Your task to perform on an android device: search for starred emails in the gmail app Image 0: 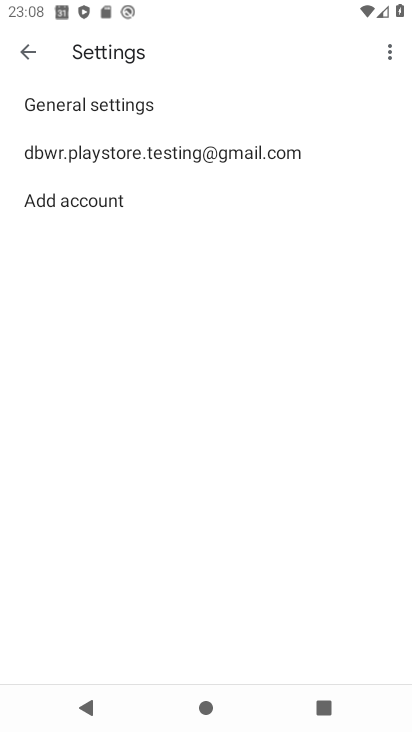
Step 0: press back button
Your task to perform on an android device: search for starred emails in the gmail app Image 1: 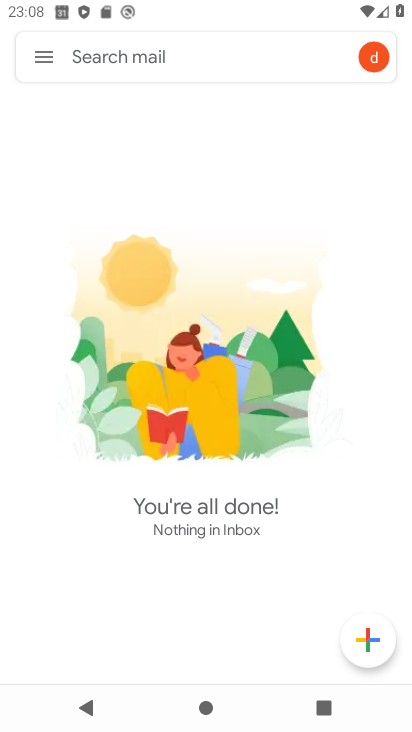
Step 1: press back button
Your task to perform on an android device: search for starred emails in the gmail app Image 2: 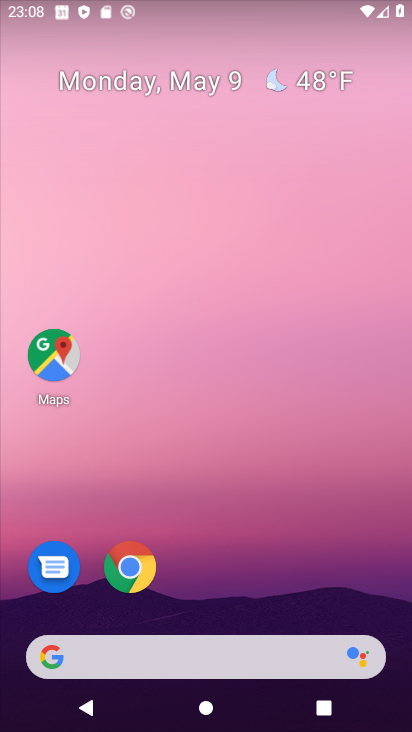
Step 2: drag from (230, 582) to (180, 76)
Your task to perform on an android device: search for starred emails in the gmail app Image 3: 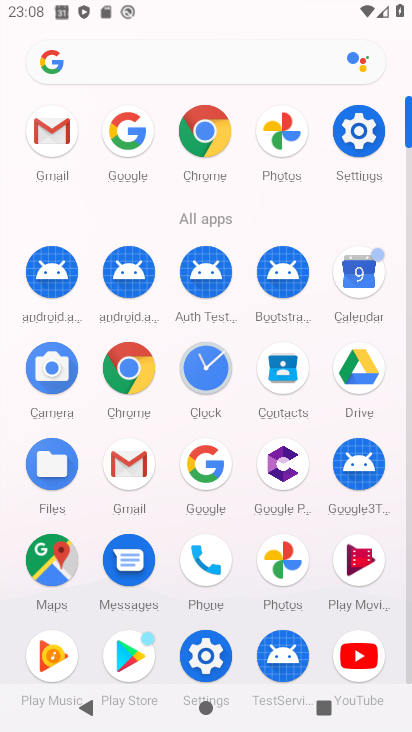
Step 3: click (48, 135)
Your task to perform on an android device: search for starred emails in the gmail app Image 4: 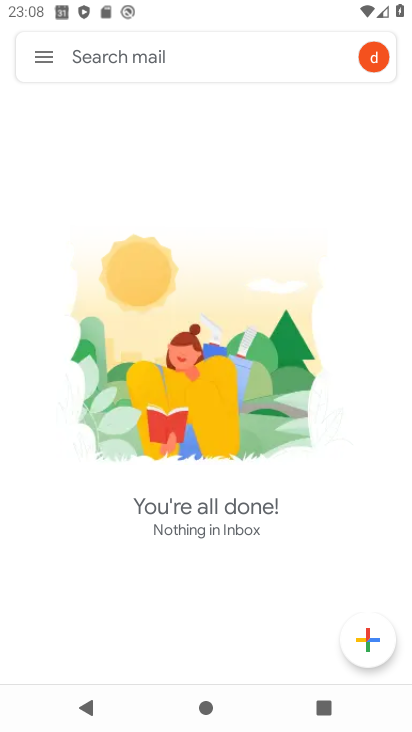
Step 4: click (42, 56)
Your task to perform on an android device: search for starred emails in the gmail app Image 5: 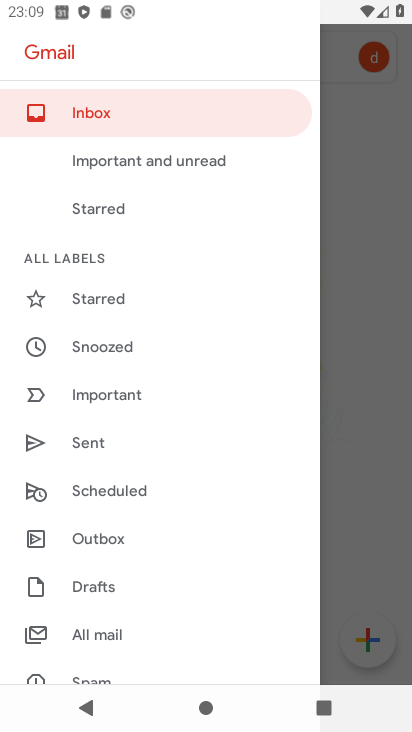
Step 5: click (91, 297)
Your task to perform on an android device: search for starred emails in the gmail app Image 6: 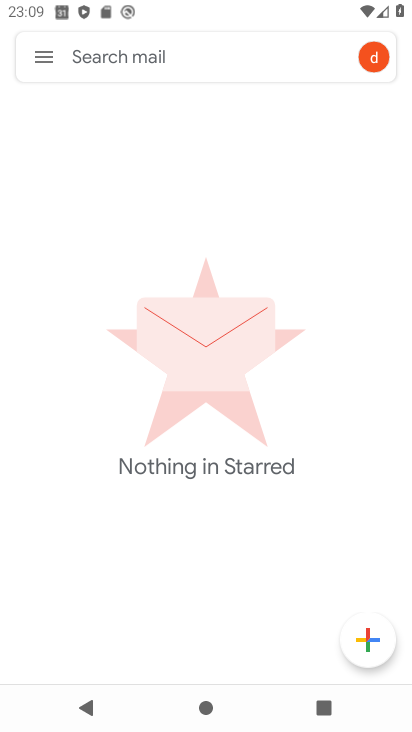
Step 6: click (40, 60)
Your task to perform on an android device: search for starred emails in the gmail app Image 7: 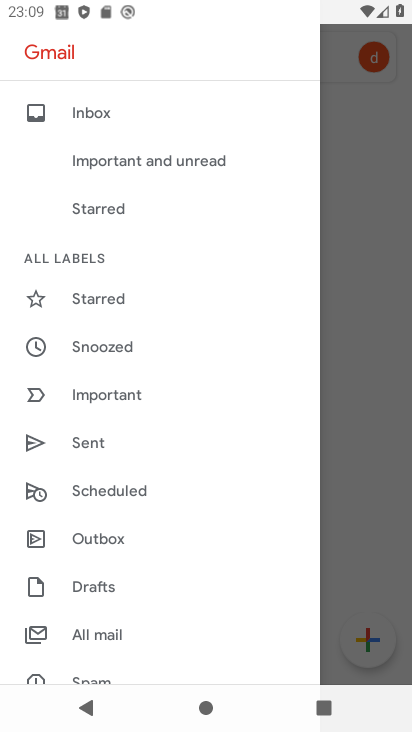
Step 7: click (364, 425)
Your task to perform on an android device: search for starred emails in the gmail app Image 8: 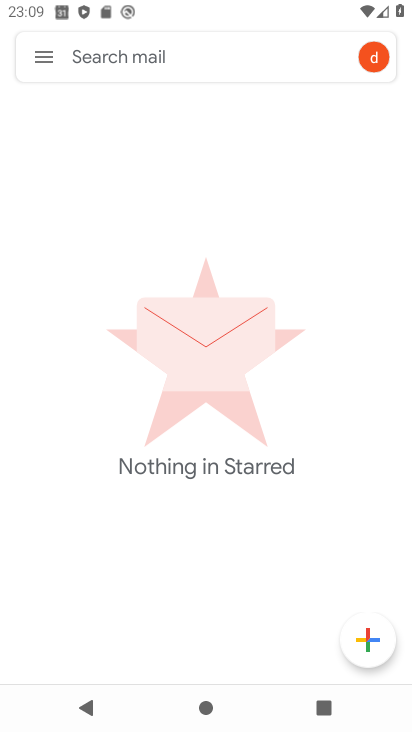
Step 8: click (133, 66)
Your task to perform on an android device: search for starred emails in the gmail app Image 9: 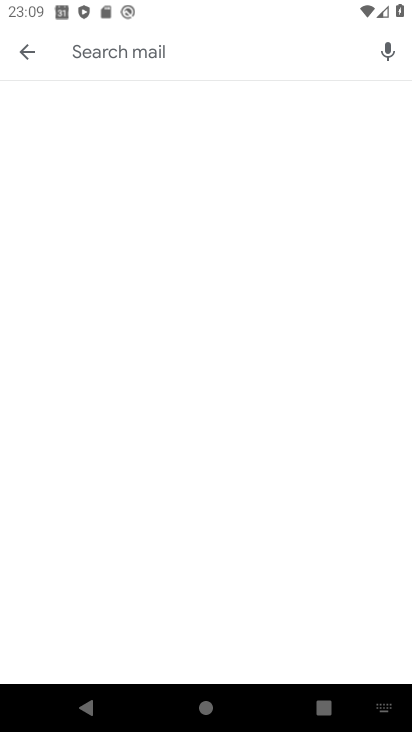
Step 9: type "starred"
Your task to perform on an android device: search for starred emails in the gmail app Image 10: 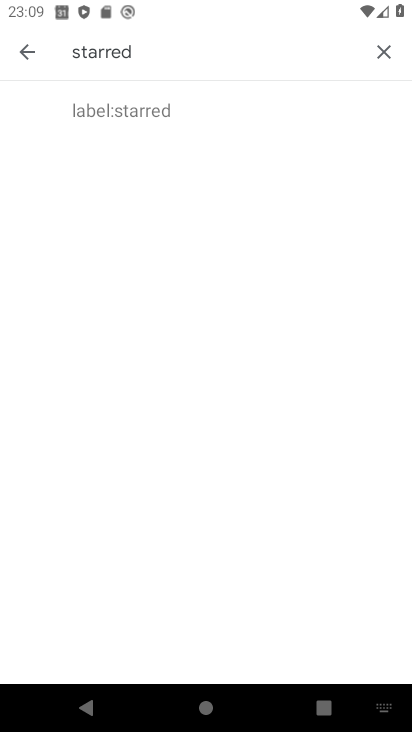
Step 10: click (140, 112)
Your task to perform on an android device: search for starred emails in the gmail app Image 11: 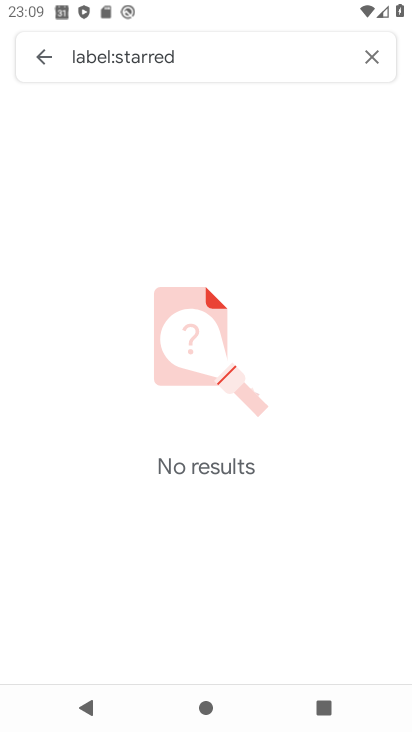
Step 11: task complete